Your task to perform on an android device: Go to Amazon Image 0: 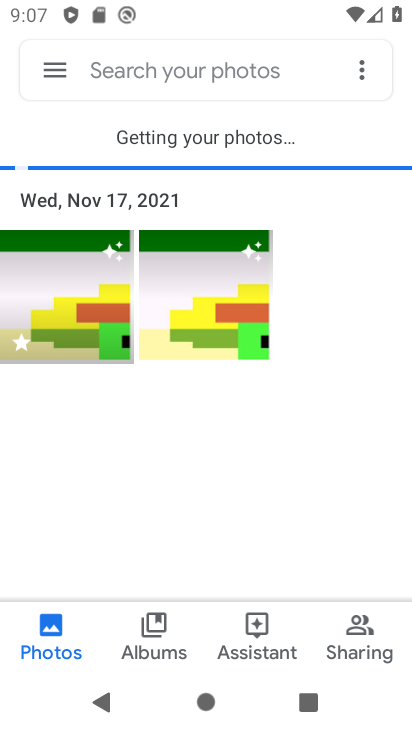
Step 0: press back button
Your task to perform on an android device: Go to Amazon Image 1: 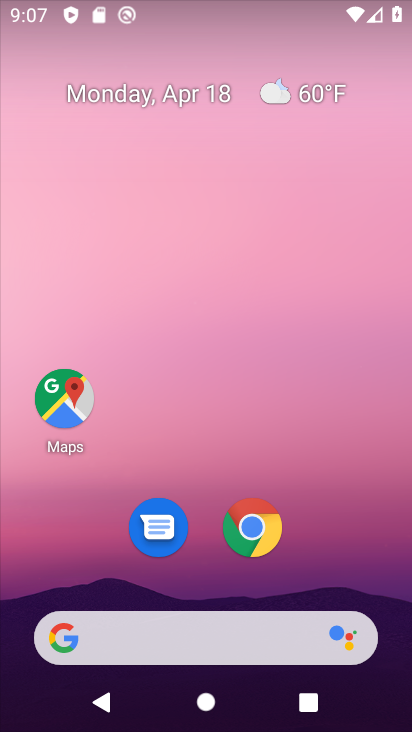
Step 1: click (264, 539)
Your task to perform on an android device: Go to Amazon Image 2: 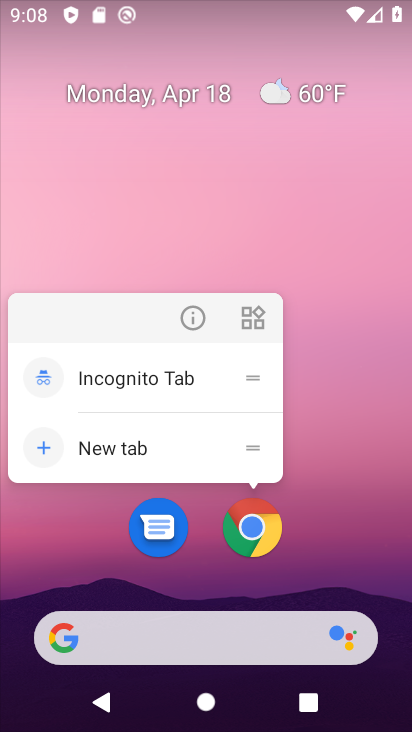
Step 2: click (247, 520)
Your task to perform on an android device: Go to Amazon Image 3: 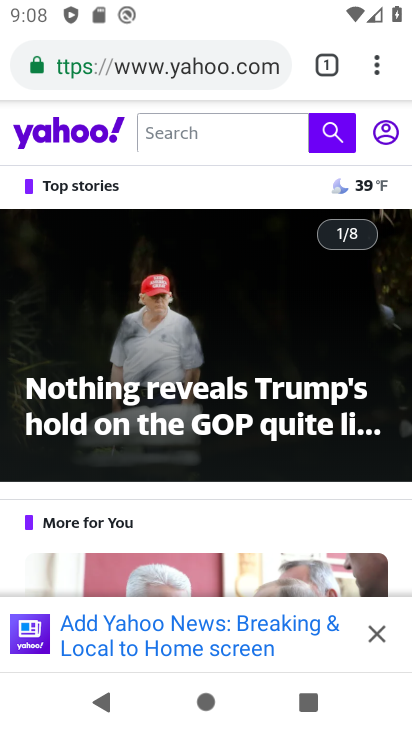
Step 3: press back button
Your task to perform on an android device: Go to Amazon Image 4: 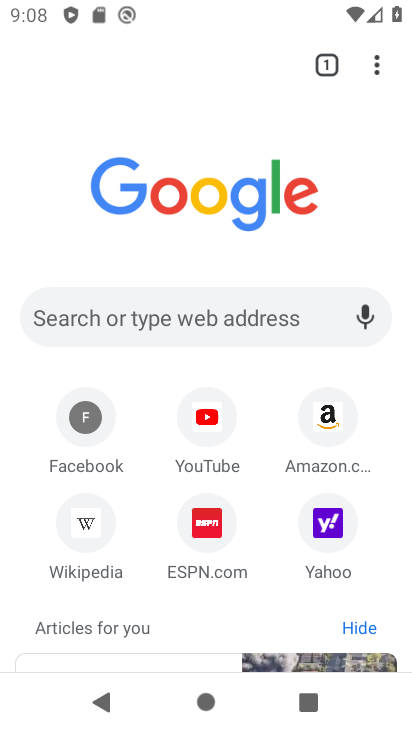
Step 4: click (332, 416)
Your task to perform on an android device: Go to Amazon Image 5: 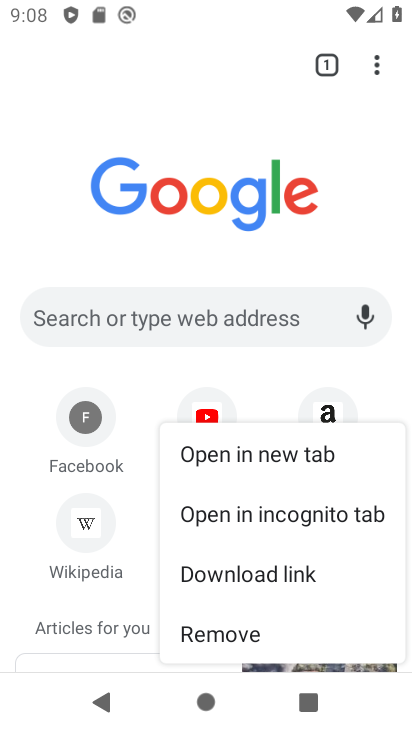
Step 5: click (337, 409)
Your task to perform on an android device: Go to Amazon Image 6: 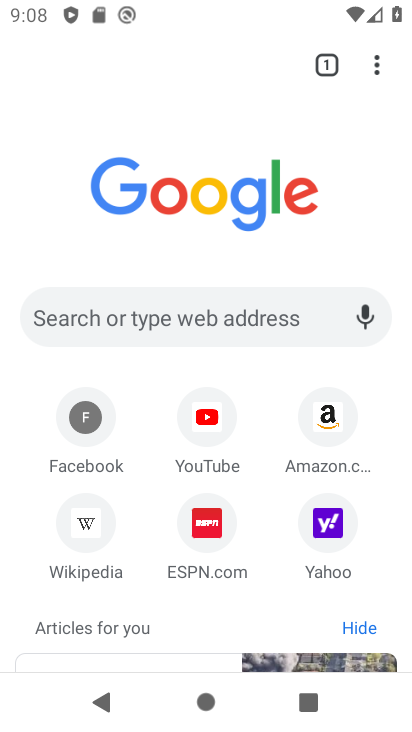
Step 6: click (335, 408)
Your task to perform on an android device: Go to Amazon Image 7: 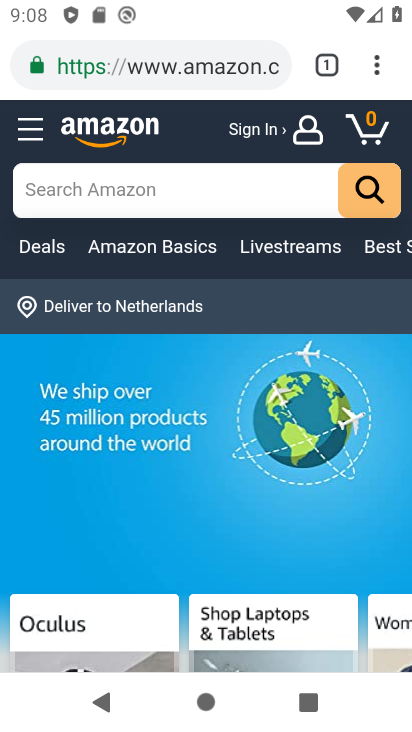
Step 7: task complete